Your task to perform on an android device: open chrome privacy settings Image 0: 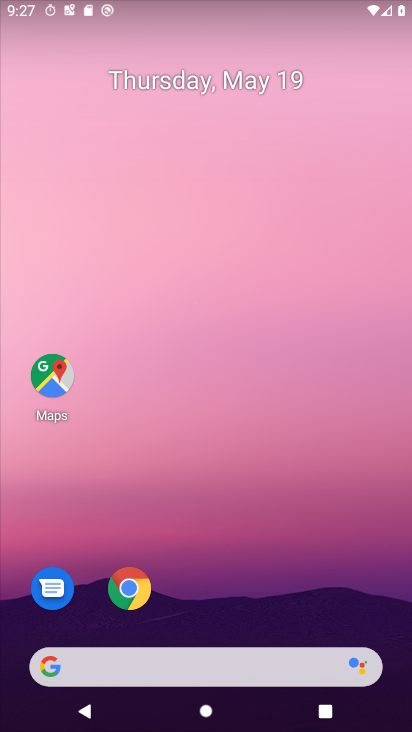
Step 0: press home button
Your task to perform on an android device: open chrome privacy settings Image 1: 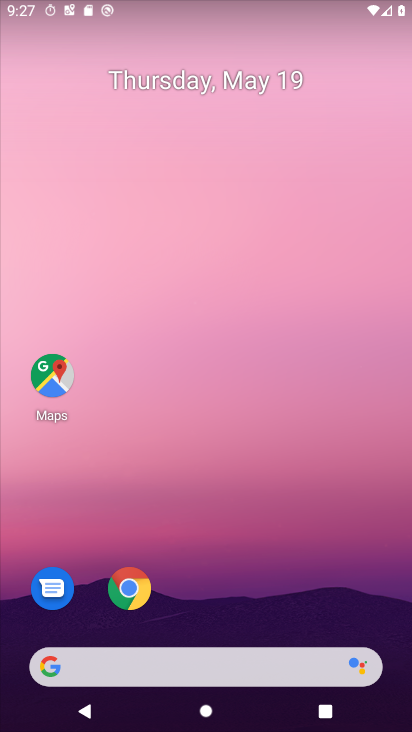
Step 1: click (132, 590)
Your task to perform on an android device: open chrome privacy settings Image 2: 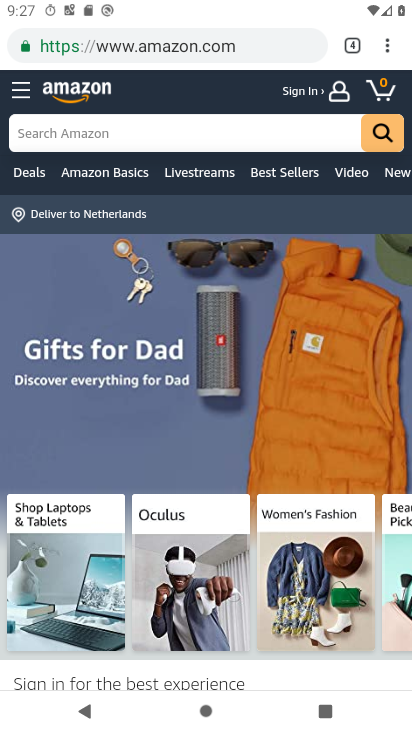
Step 2: drag from (387, 45) to (272, 542)
Your task to perform on an android device: open chrome privacy settings Image 3: 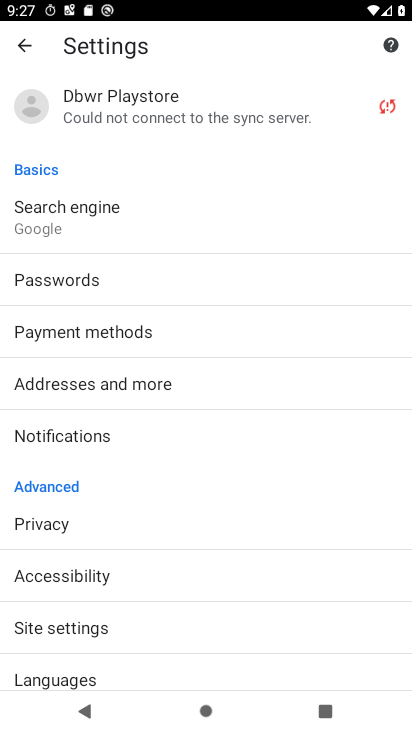
Step 3: click (57, 527)
Your task to perform on an android device: open chrome privacy settings Image 4: 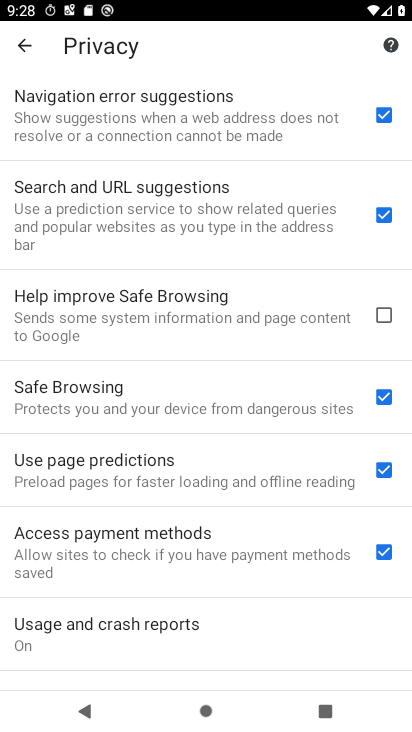
Step 4: task complete